Your task to perform on an android device: toggle improve location accuracy Image 0: 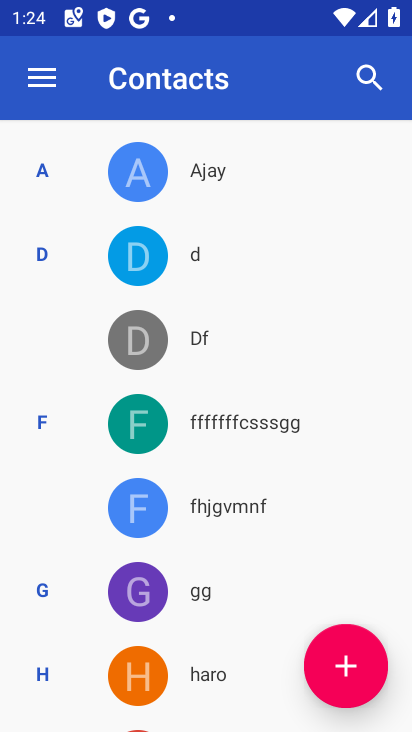
Step 0: press back button
Your task to perform on an android device: toggle improve location accuracy Image 1: 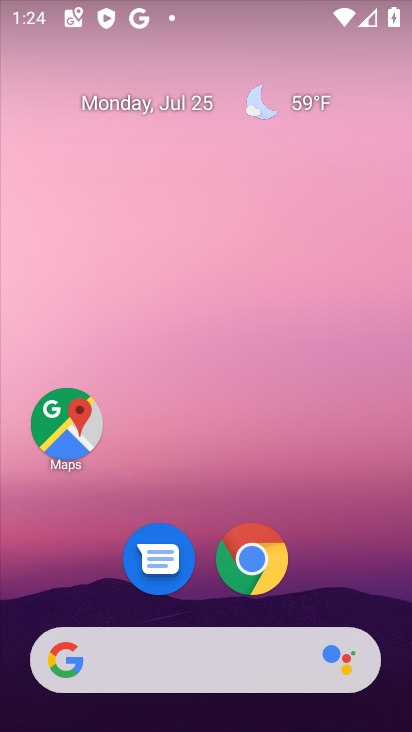
Step 1: drag from (100, 543) to (160, 62)
Your task to perform on an android device: toggle improve location accuracy Image 2: 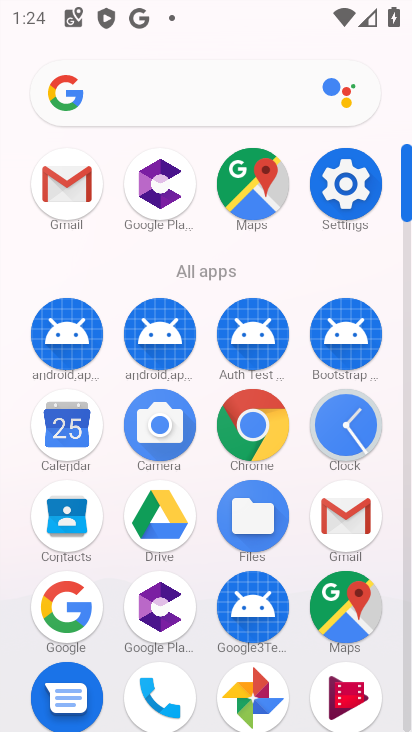
Step 2: click (337, 190)
Your task to perform on an android device: toggle improve location accuracy Image 3: 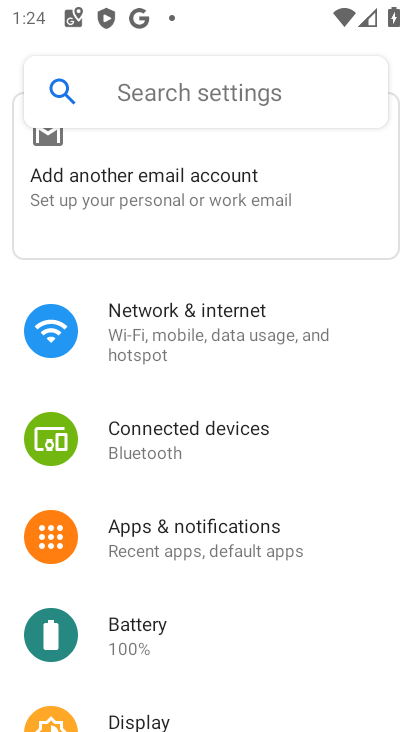
Step 3: drag from (193, 611) to (289, 17)
Your task to perform on an android device: toggle improve location accuracy Image 4: 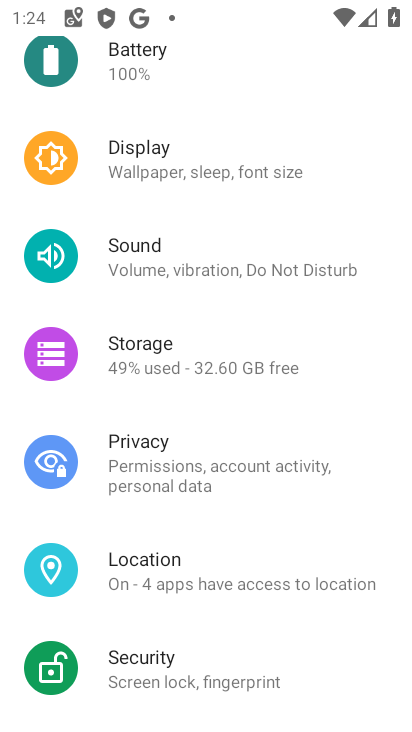
Step 4: click (162, 572)
Your task to perform on an android device: toggle improve location accuracy Image 5: 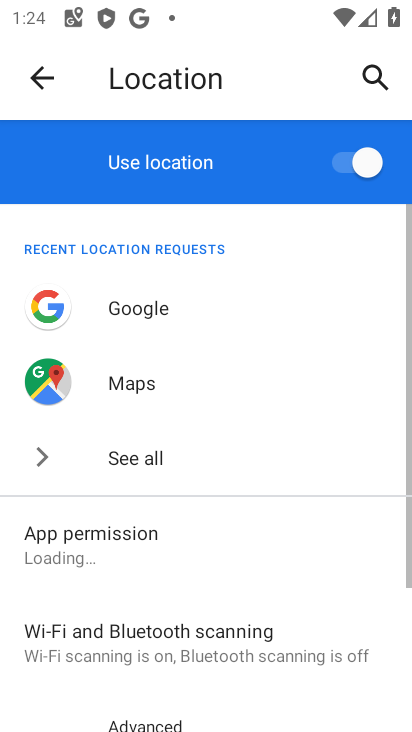
Step 5: drag from (160, 609) to (271, 146)
Your task to perform on an android device: toggle improve location accuracy Image 6: 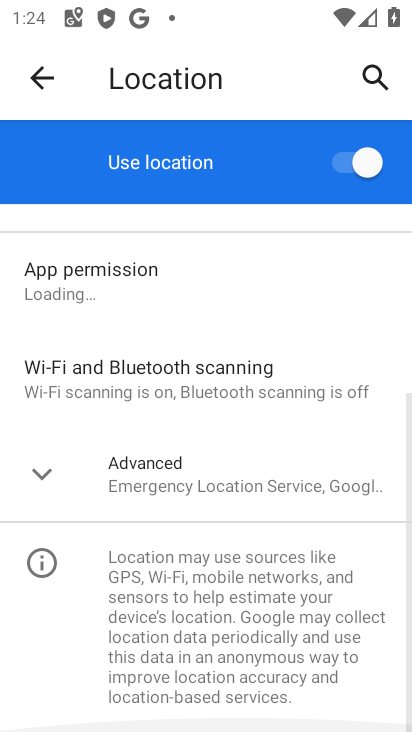
Step 6: click (122, 478)
Your task to perform on an android device: toggle improve location accuracy Image 7: 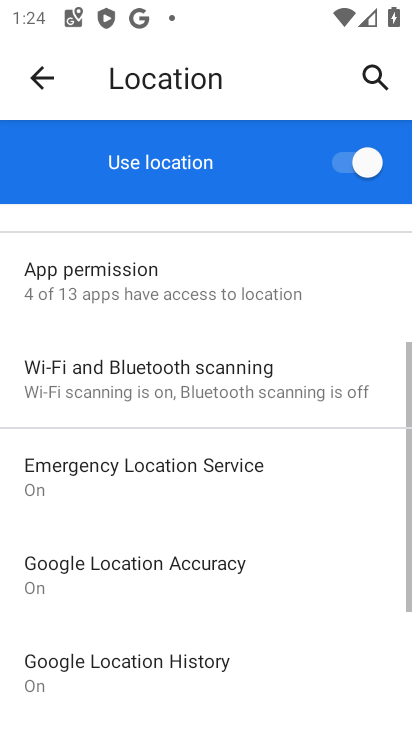
Step 7: click (96, 567)
Your task to perform on an android device: toggle improve location accuracy Image 8: 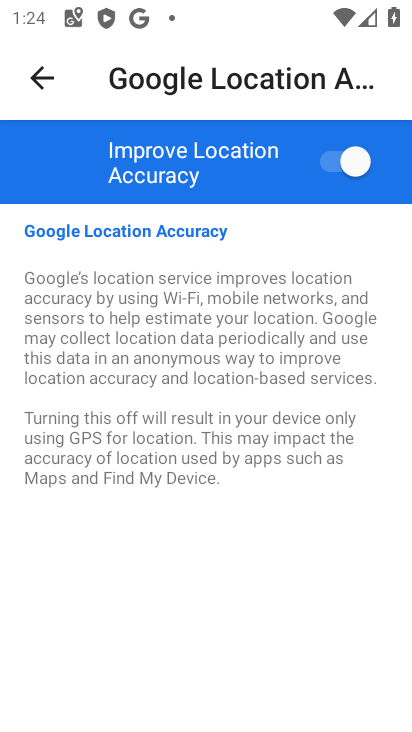
Step 8: click (352, 153)
Your task to perform on an android device: toggle improve location accuracy Image 9: 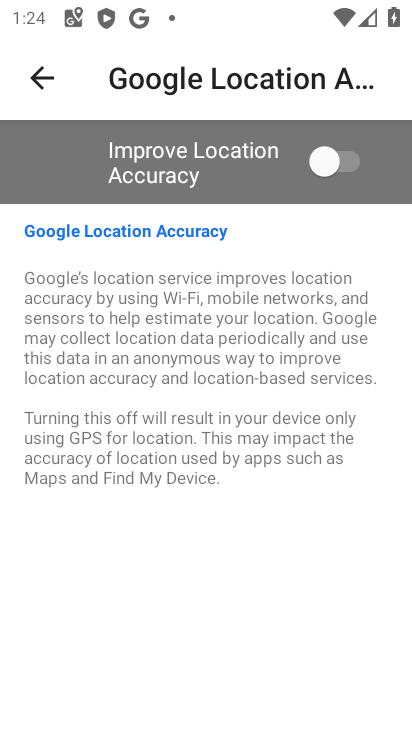
Step 9: task complete